Your task to perform on an android device: move an email to a new category in the gmail app Image 0: 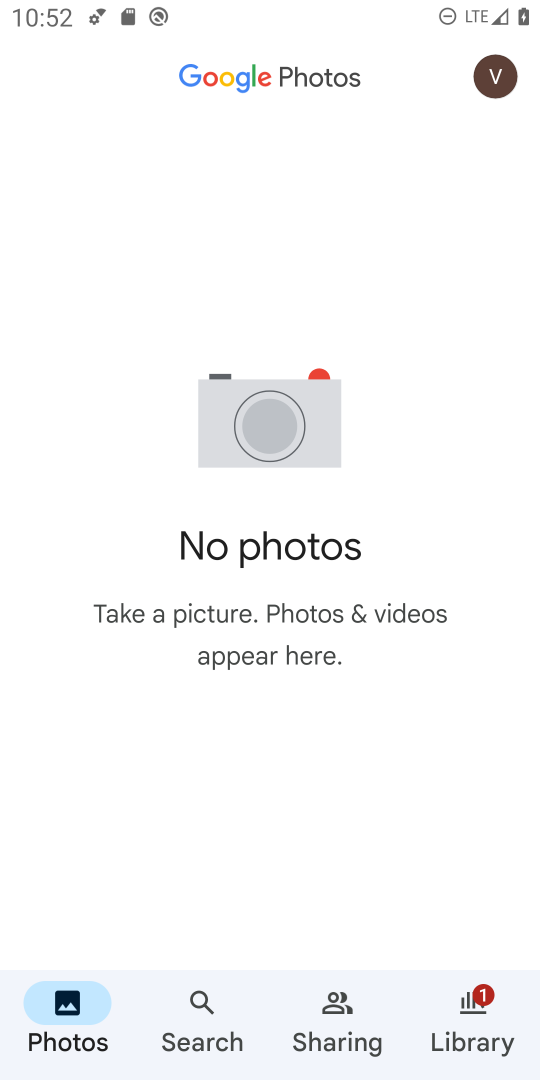
Step 0: press home button
Your task to perform on an android device: move an email to a new category in the gmail app Image 1: 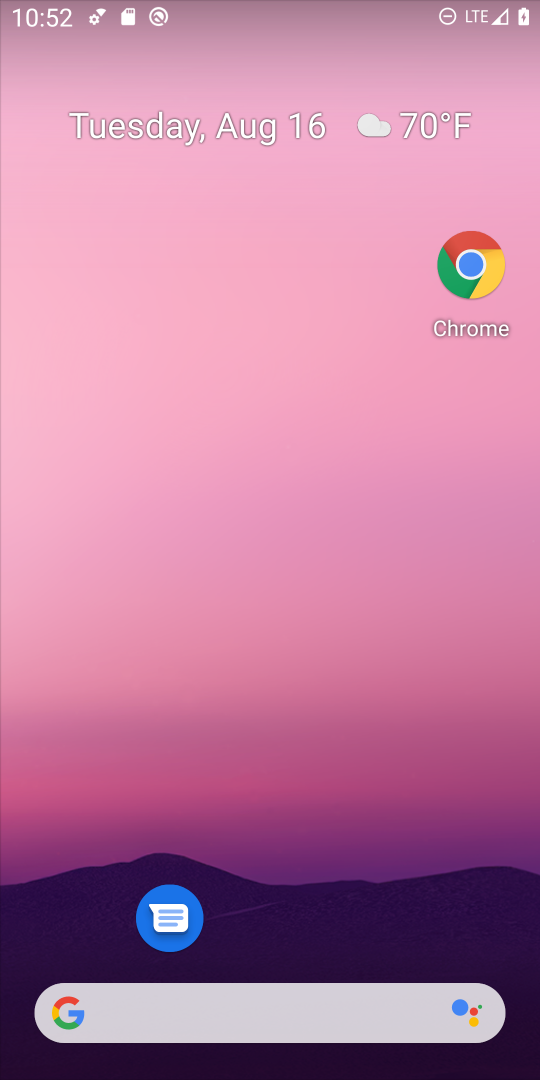
Step 1: drag from (299, 873) to (301, 25)
Your task to perform on an android device: move an email to a new category in the gmail app Image 2: 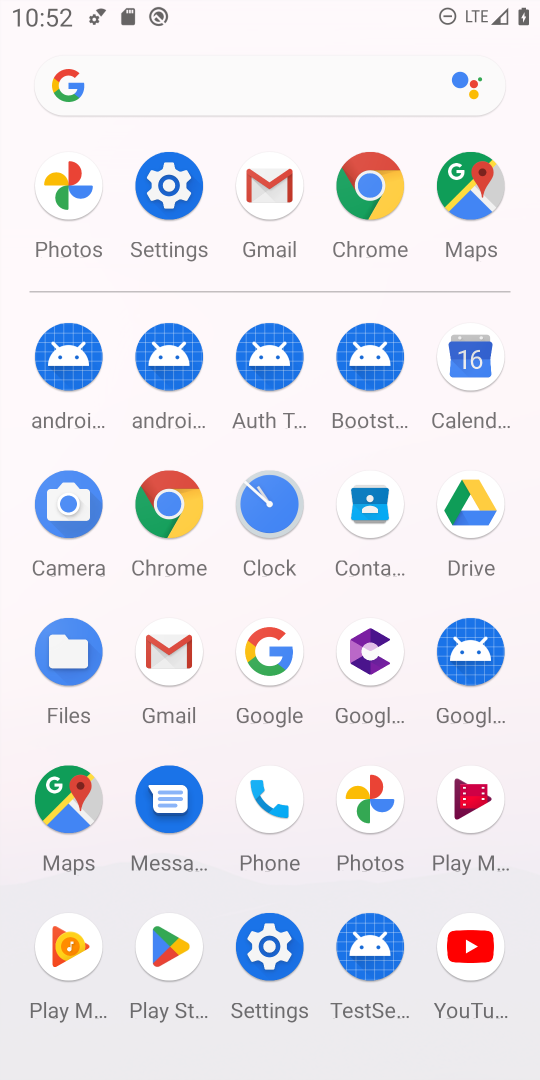
Step 2: click (166, 659)
Your task to perform on an android device: move an email to a new category in the gmail app Image 3: 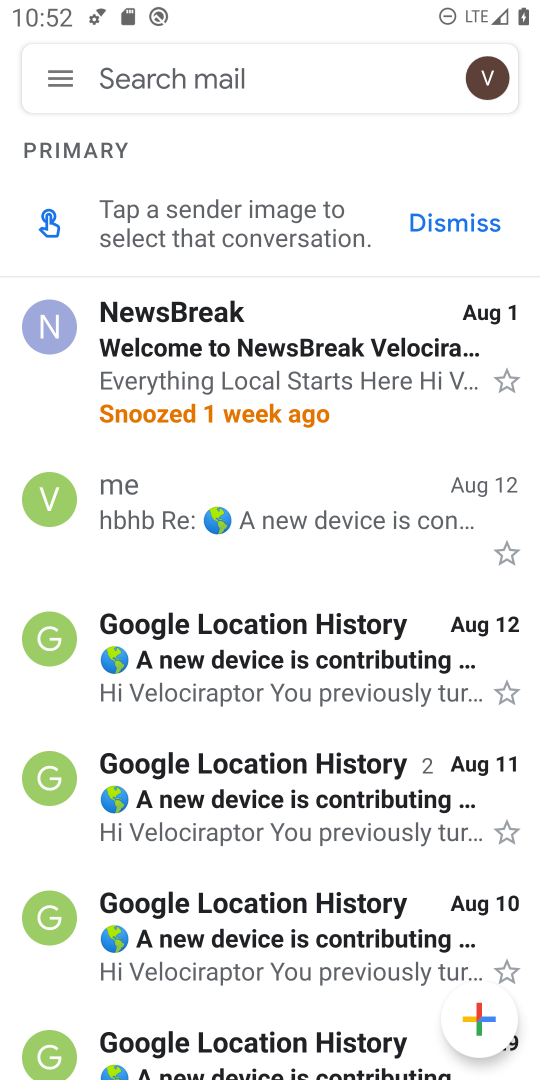
Step 3: click (55, 83)
Your task to perform on an android device: move an email to a new category in the gmail app Image 4: 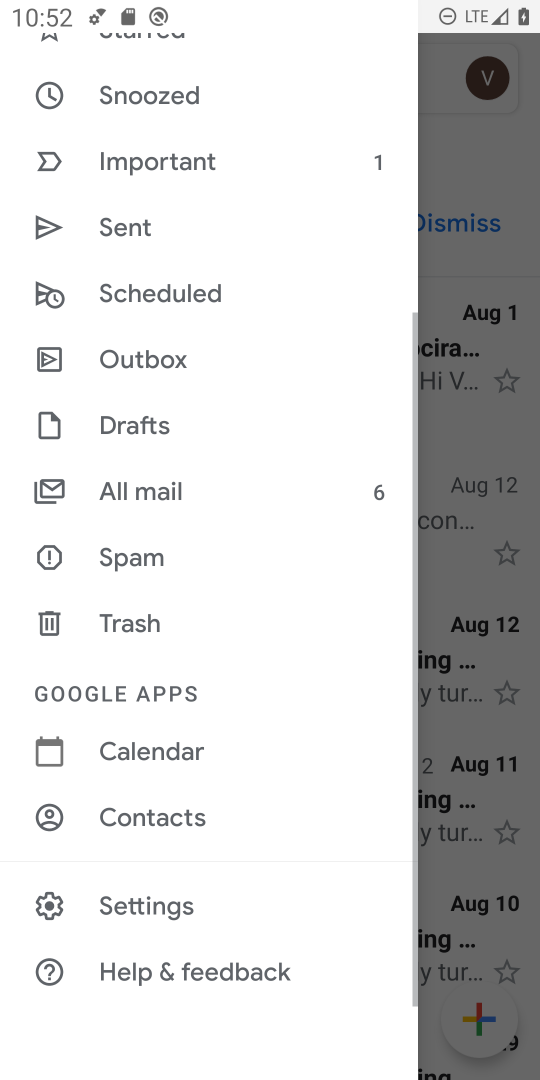
Step 4: click (399, 422)
Your task to perform on an android device: move an email to a new category in the gmail app Image 5: 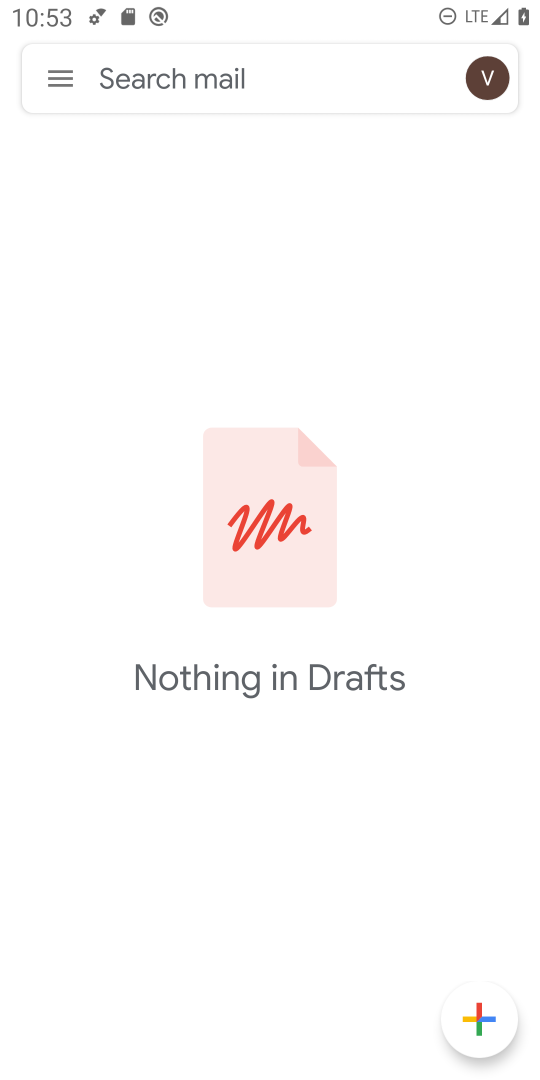
Step 5: click (54, 84)
Your task to perform on an android device: move an email to a new category in the gmail app Image 6: 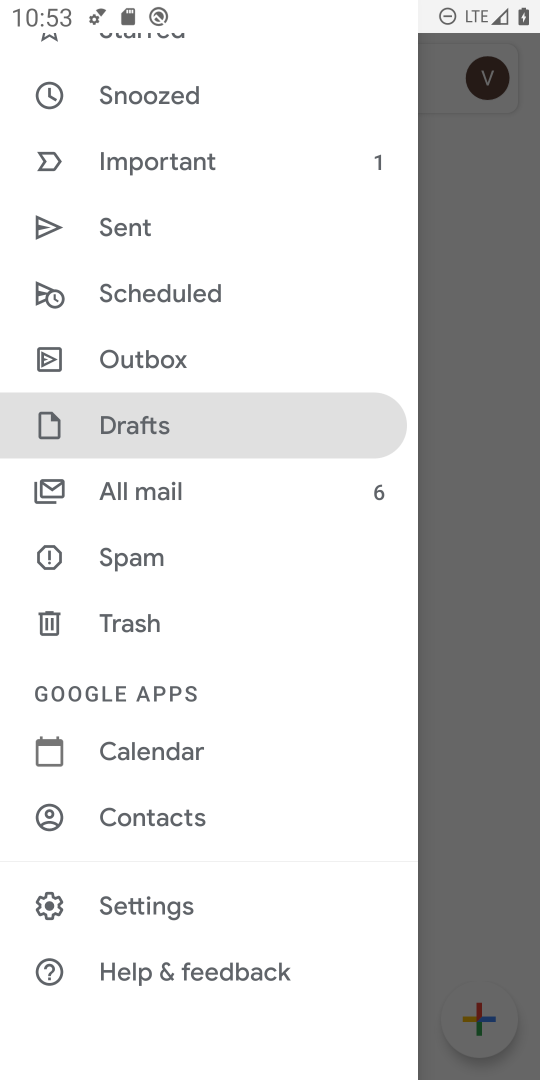
Step 6: click (178, 485)
Your task to perform on an android device: move an email to a new category in the gmail app Image 7: 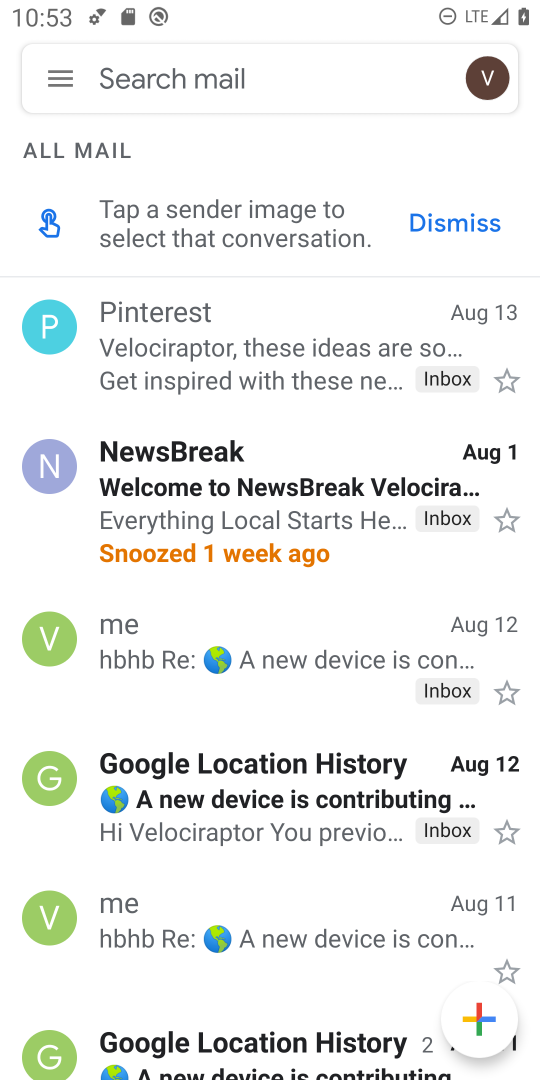
Step 7: click (218, 329)
Your task to perform on an android device: move an email to a new category in the gmail app Image 8: 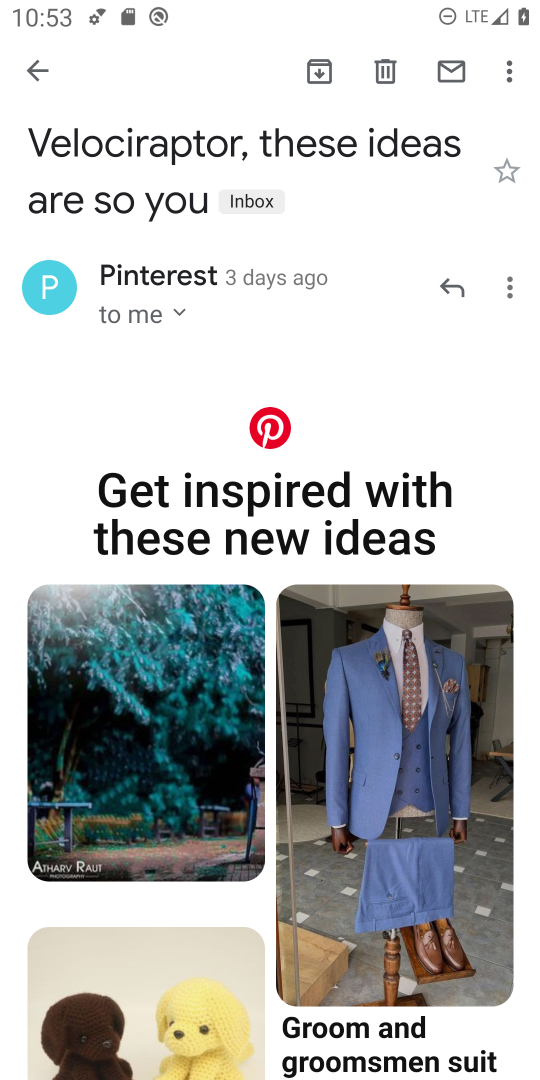
Step 8: click (42, 67)
Your task to perform on an android device: move an email to a new category in the gmail app Image 9: 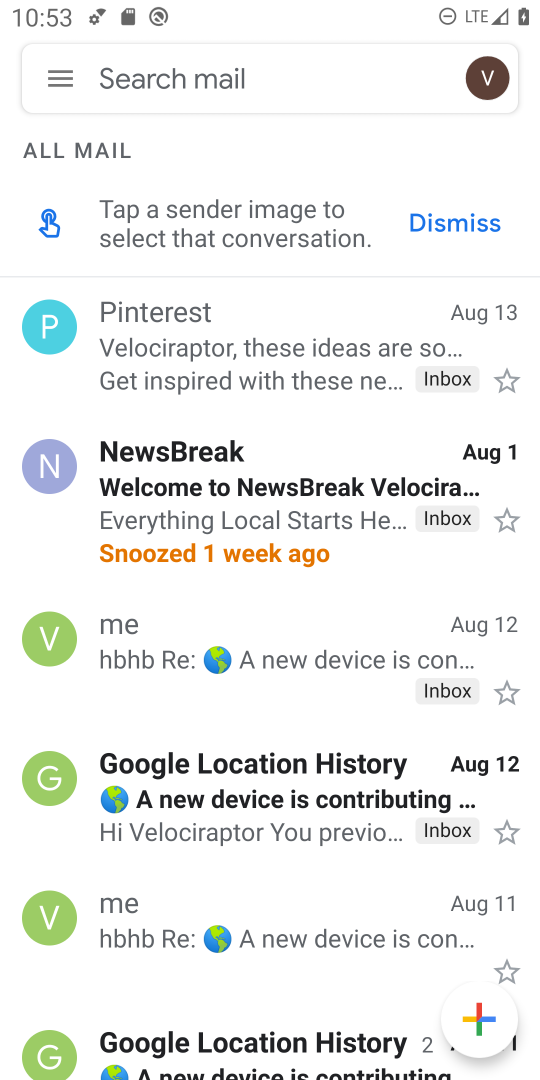
Step 9: click (283, 347)
Your task to perform on an android device: move an email to a new category in the gmail app Image 10: 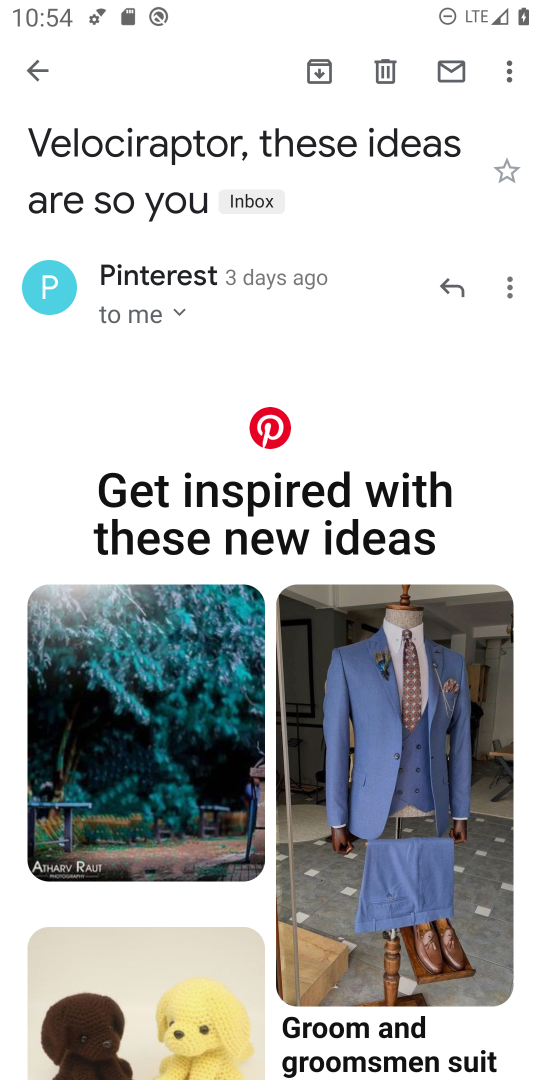
Step 10: click (502, 69)
Your task to perform on an android device: move an email to a new category in the gmail app Image 11: 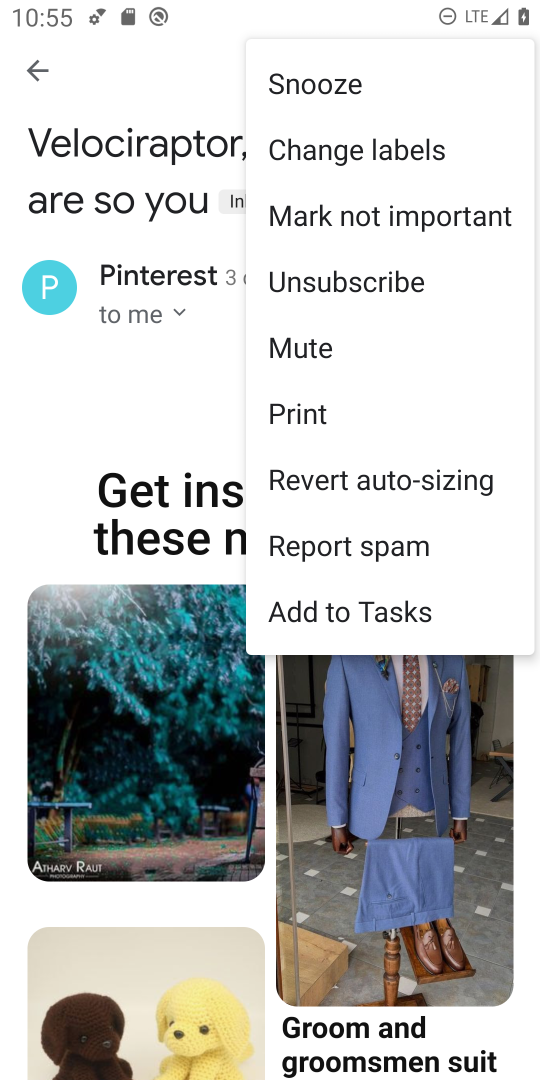
Step 11: click (377, 156)
Your task to perform on an android device: move an email to a new category in the gmail app Image 12: 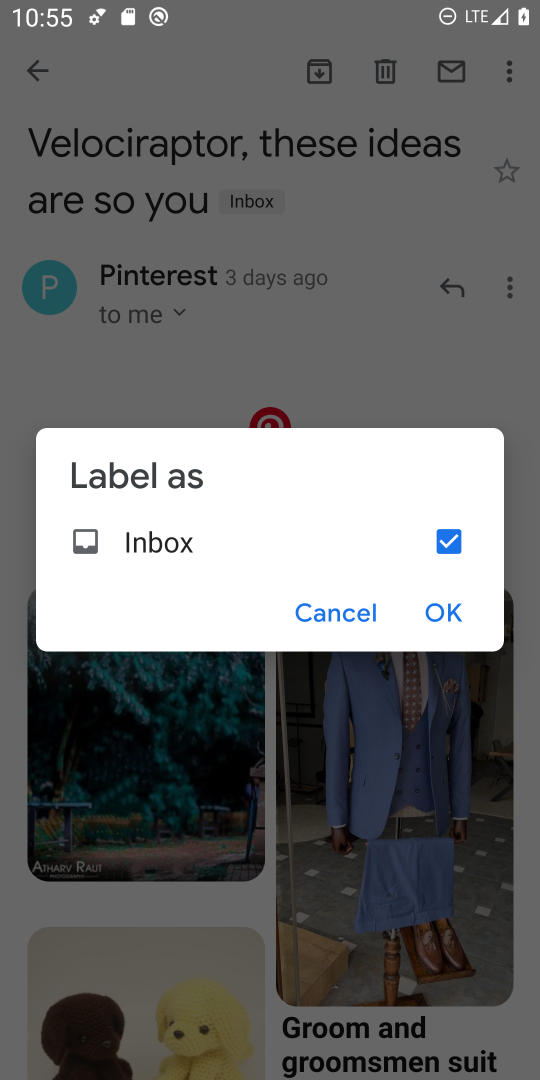
Step 12: click (437, 616)
Your task to perform on an android device: move an email to a new category in the gmail app Image 13: 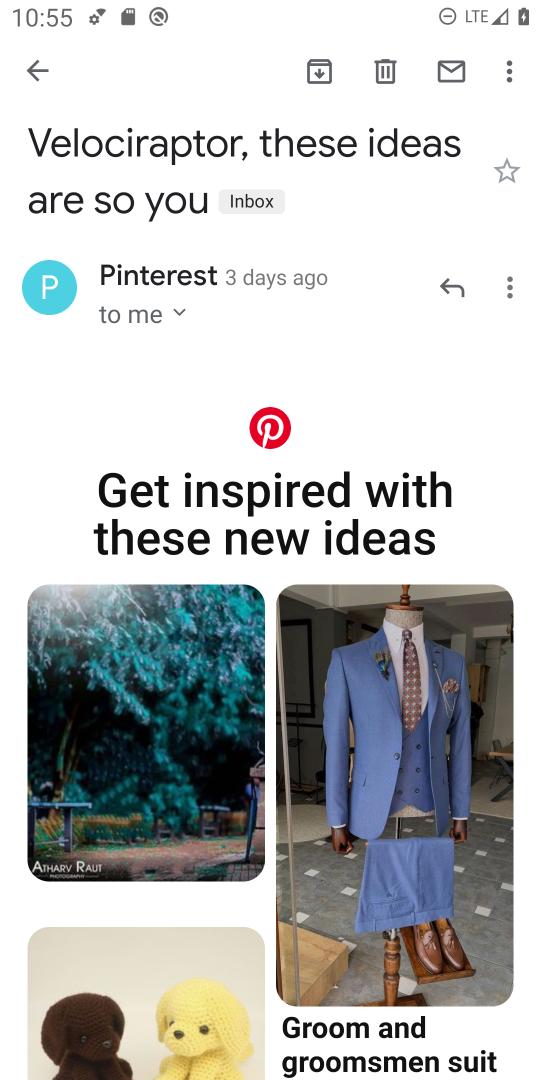
Step 13: task complete